Your task to perform on an android device: Go to CNN.com Image 0: 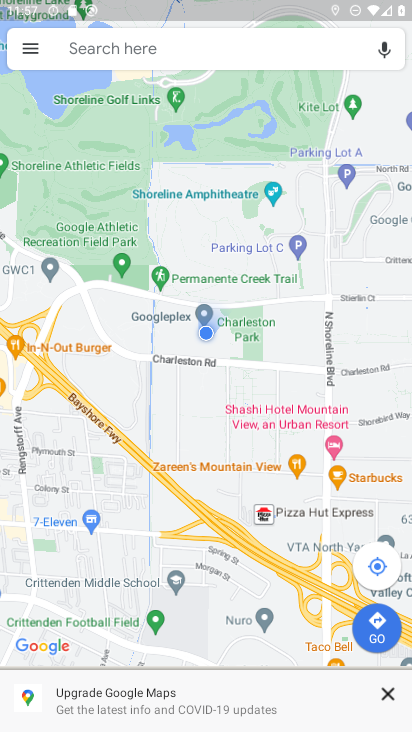
Step 0: press home button
Your task to perform on an android device: Go to CNN.com Image 1: 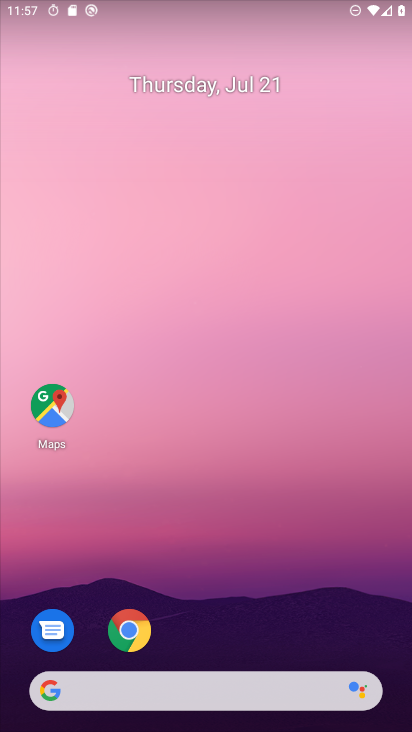
Step 1: click (41, 690)
Your task to perform on an android device: Go to CNN.com Image 2: 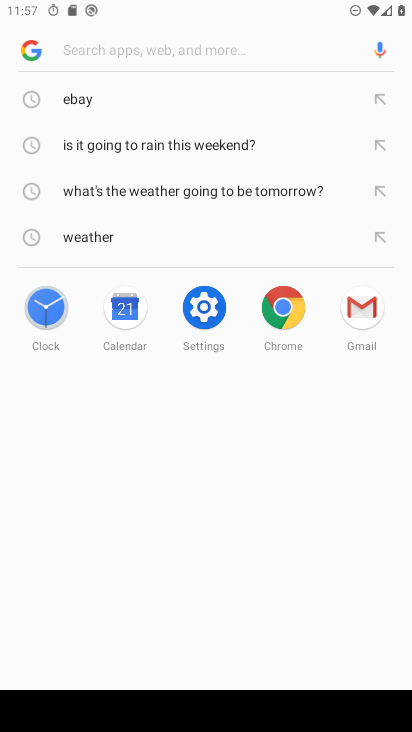
Step 2: type "CNN.com"
Your task to perform on an android device: Go to CNN.com Image 3: 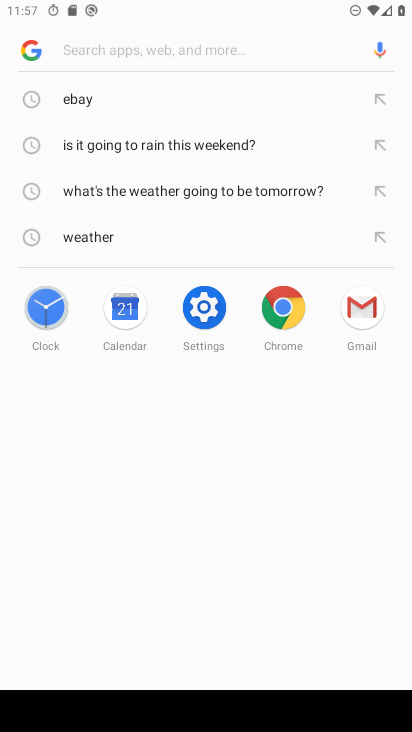
Step 3: click (87, 43)
Your task to perform on an android device: Go to CNN.com Image 4: 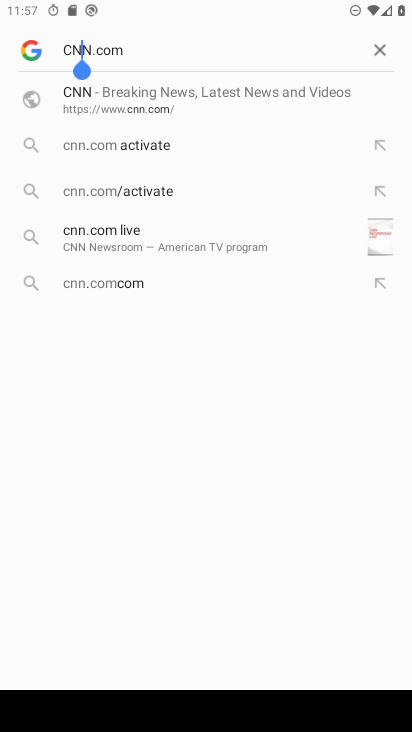
Step 4: press enter
Your task to perform on an android device: Go to CNN.com Image 5: 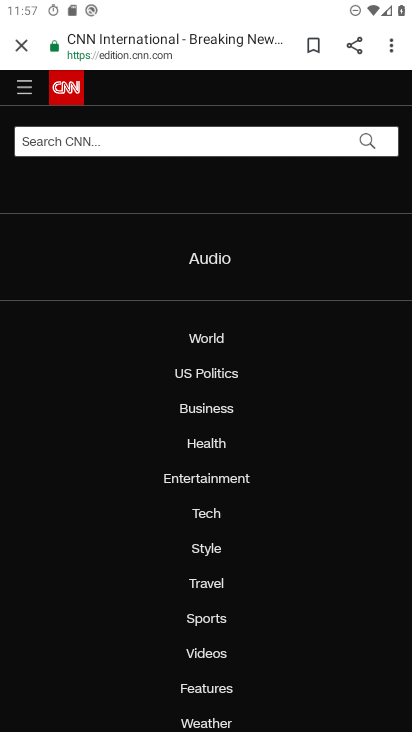
Step 5: task complete